Your task to perform on an android device: turn on bluetooth scan Image 0: 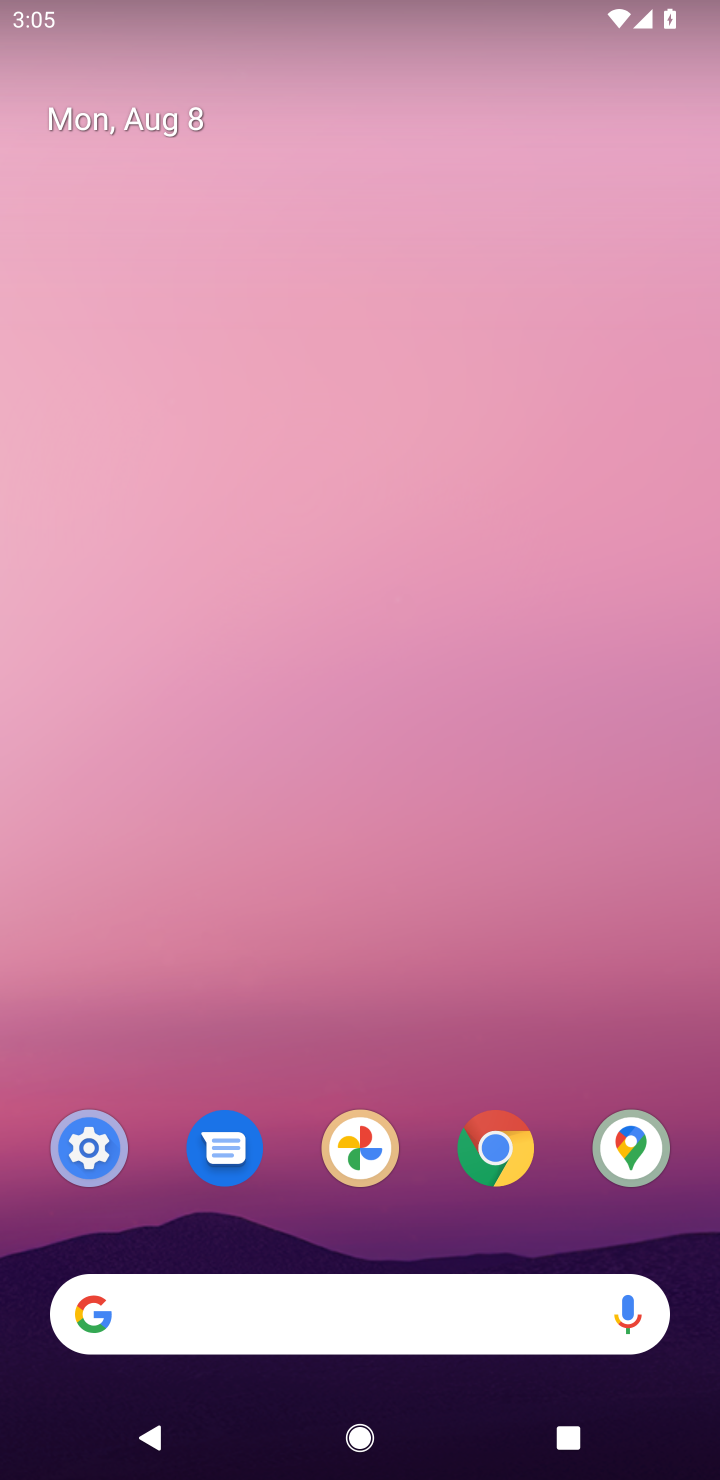
Step 0: click (88, 1150)
Your task to perform on an android device: turn on bluetooth scan Image 1: 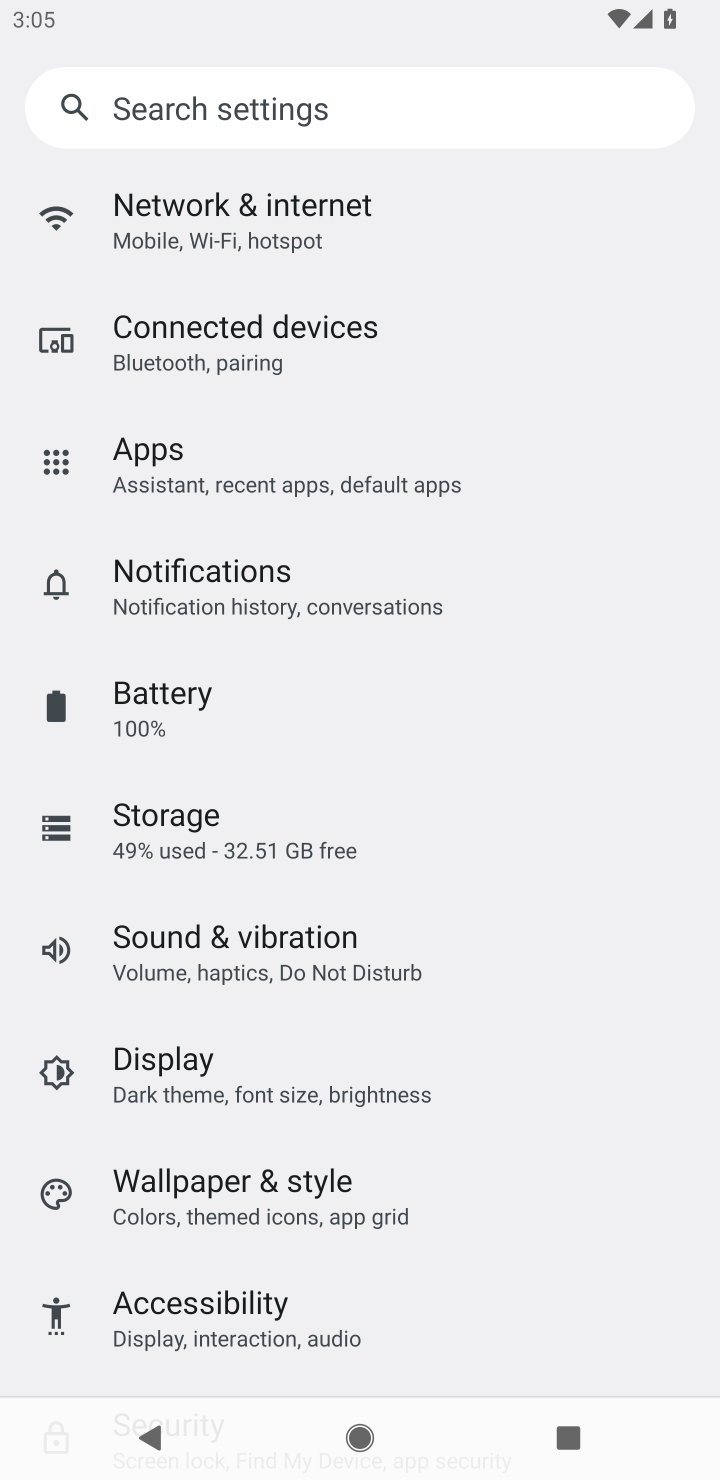
Step 1: drag from (236, 1163) to (208, 302)
Your task to perform on an android device: turn on bluetooth scan Image 2: 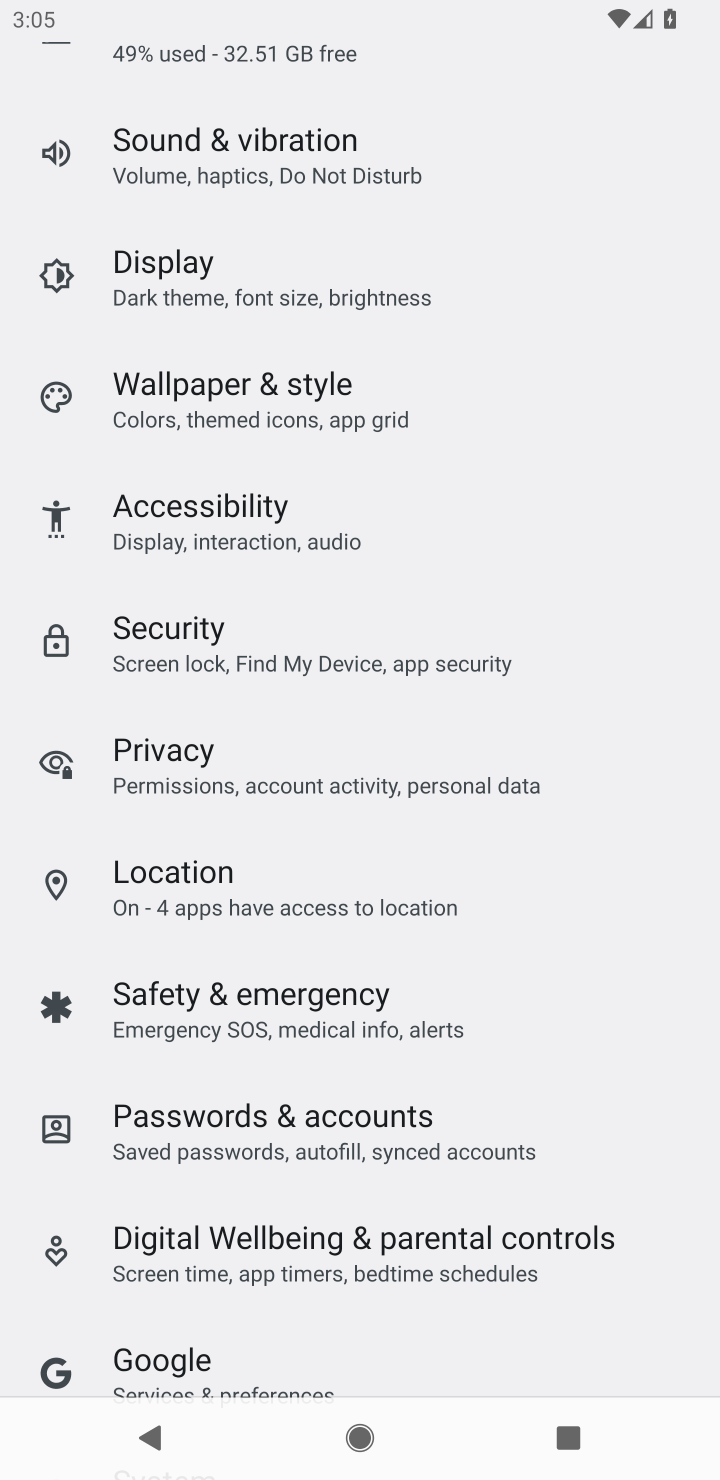
Step 2: click (298, 882)
Your task to perform on an android device: turn on bluetooth scan Image 3: 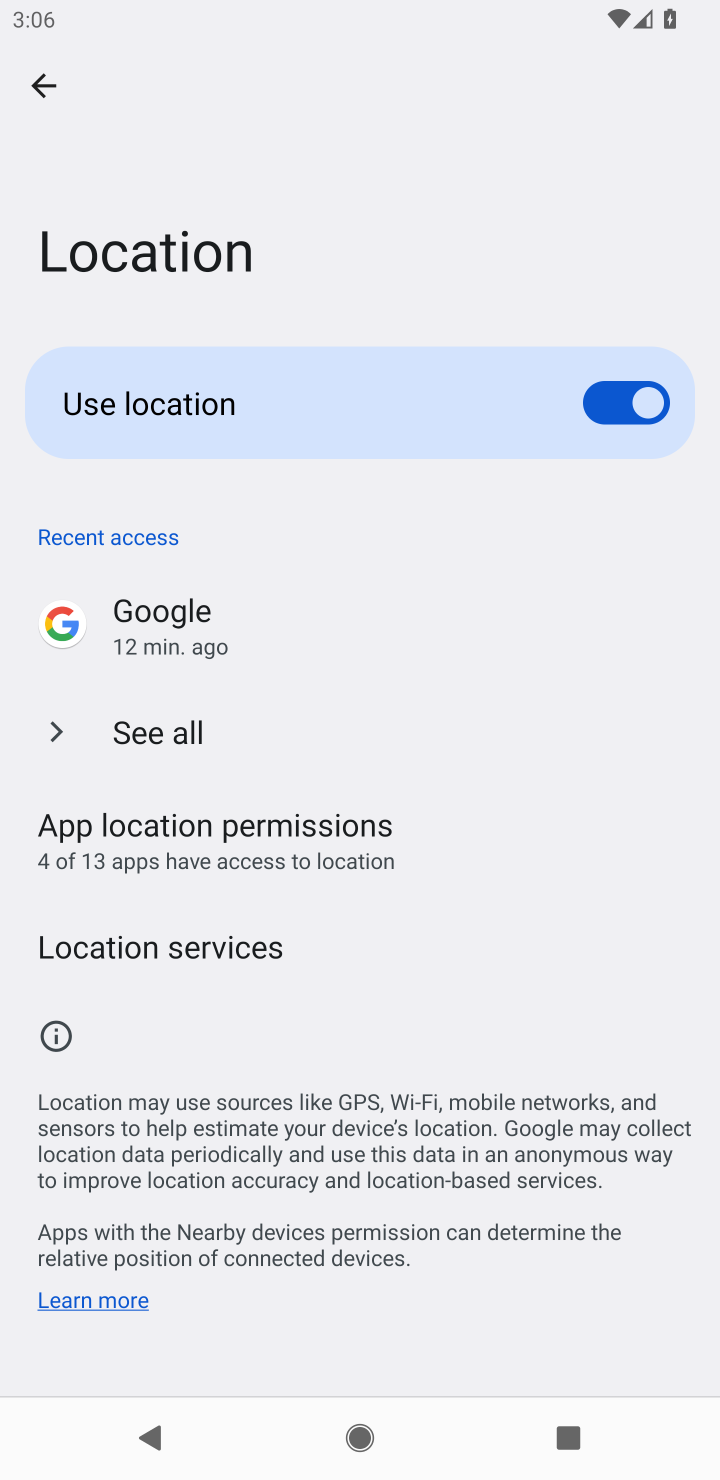
Step 3: click (134, 947)
Your task to perform on an android device: turn on bluetooth scan Image 4: 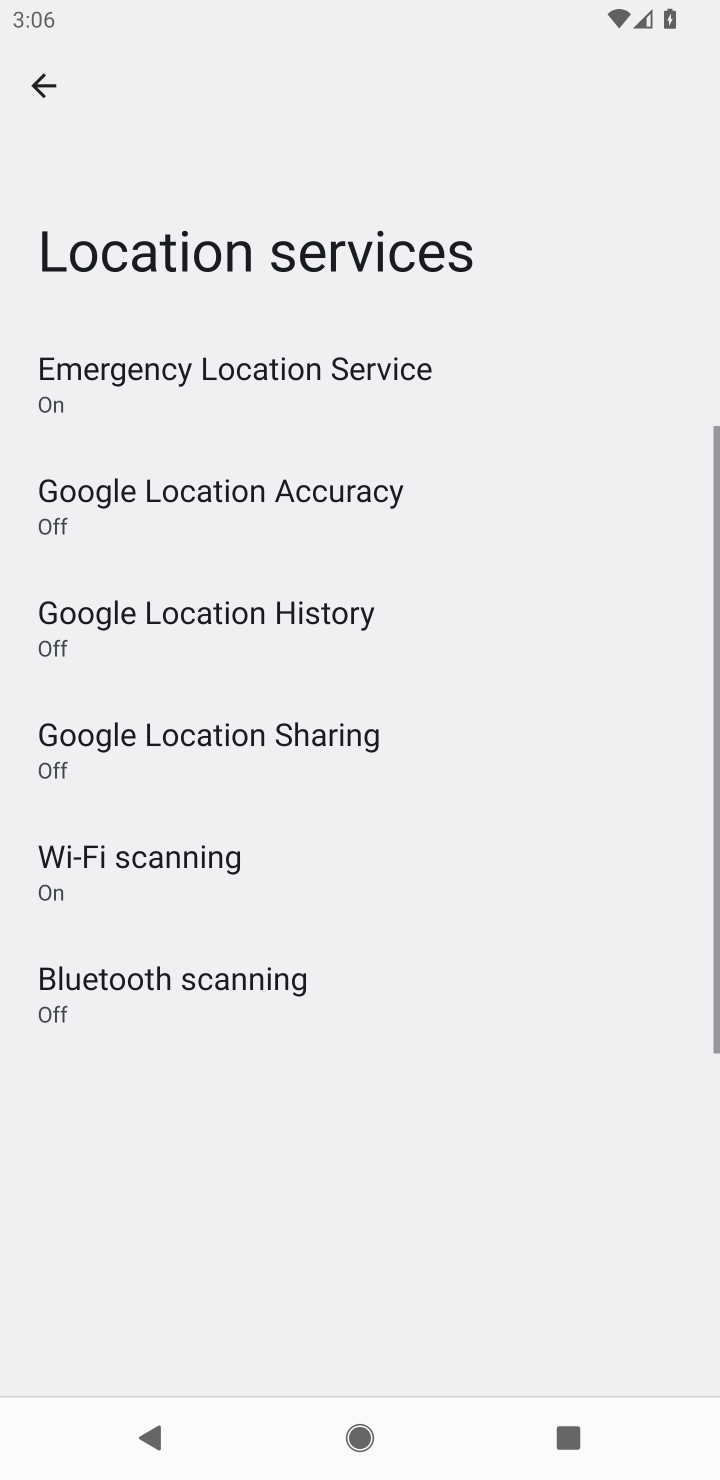
Step 4: click (231, 966)
Your task to perform on an android device: turn on bluetooth scan Image 5: 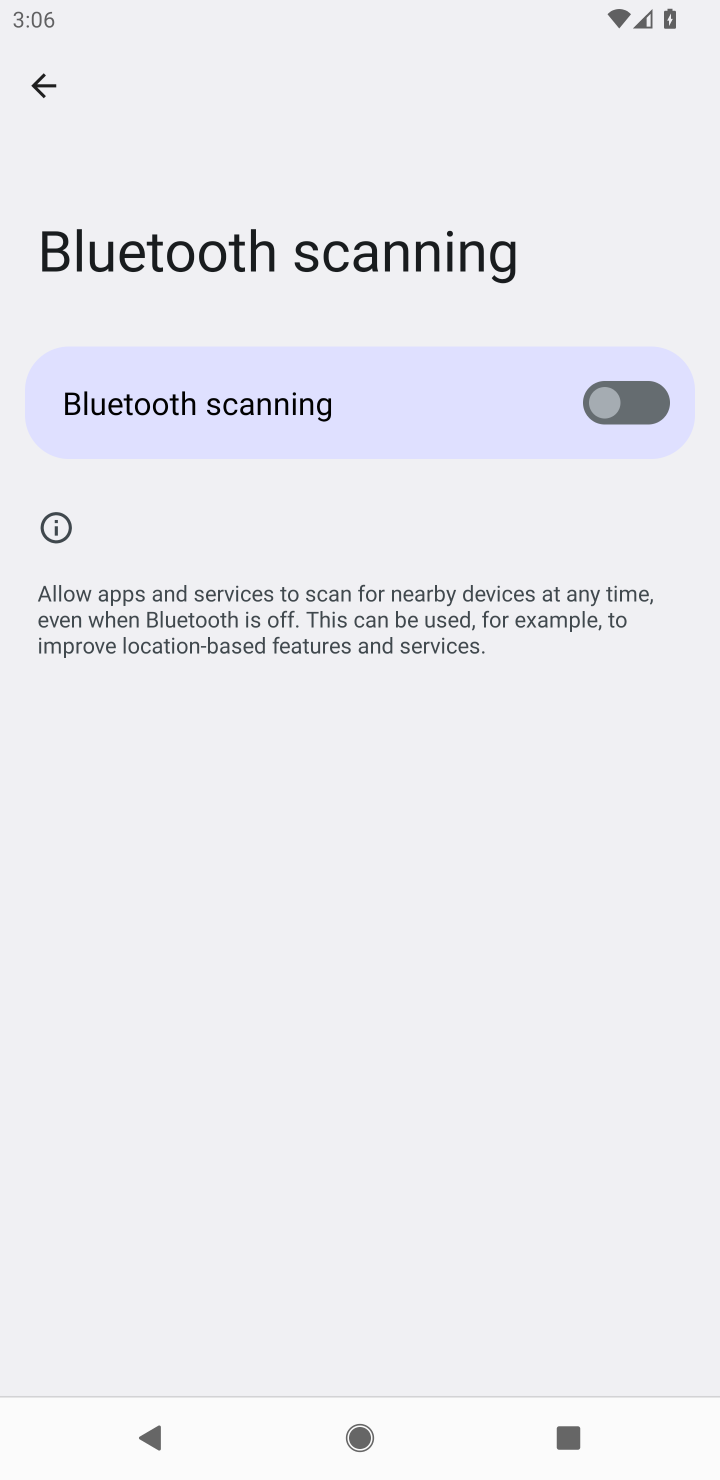
Step 5: click (651, 400)
Your task to perform on an android device: turn on bluetooth scan Image 6: 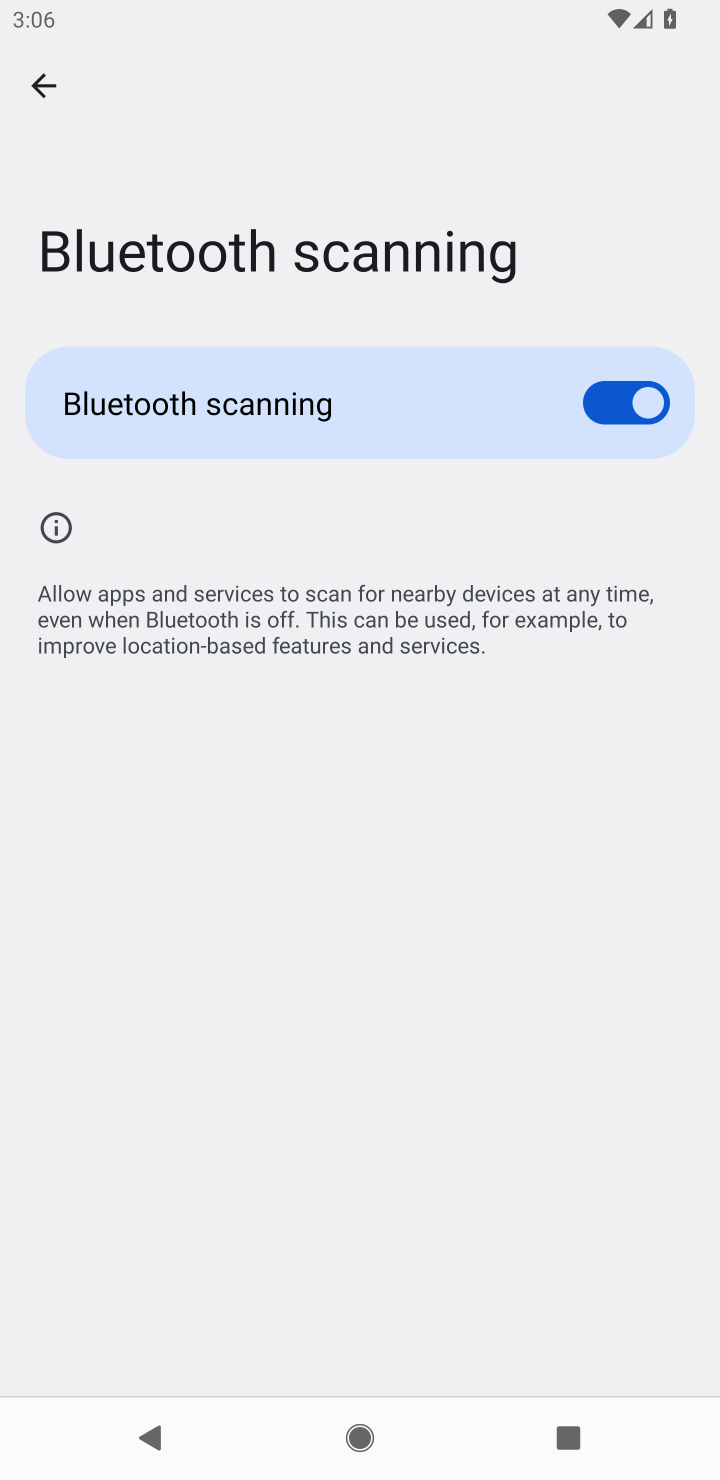
Step 6: task complete